Your task to perform on an android device: turn on data saver in the chrome app Image 0: 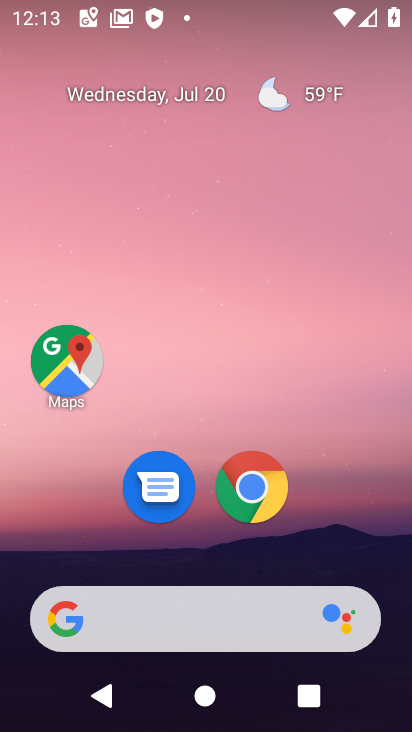
Step 0: click (259, 496)
Your task to perform on an android device: turn on data saver in the chrome app Image 1: 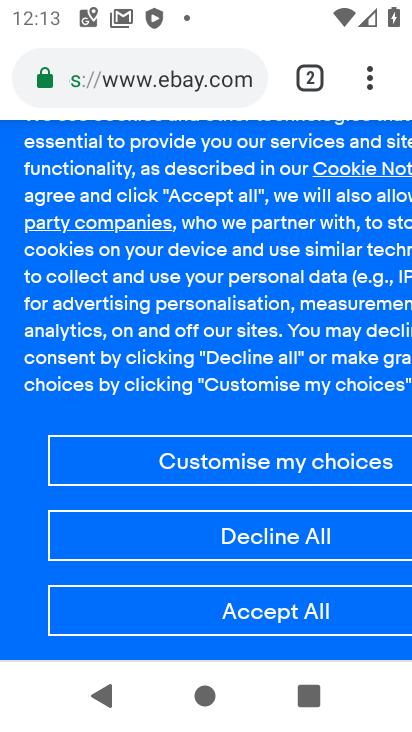
Step 1: drag from (372, 72) to (126, 546)
Your task to perform on an android device: turn on data saver in the chrome app Image 2: 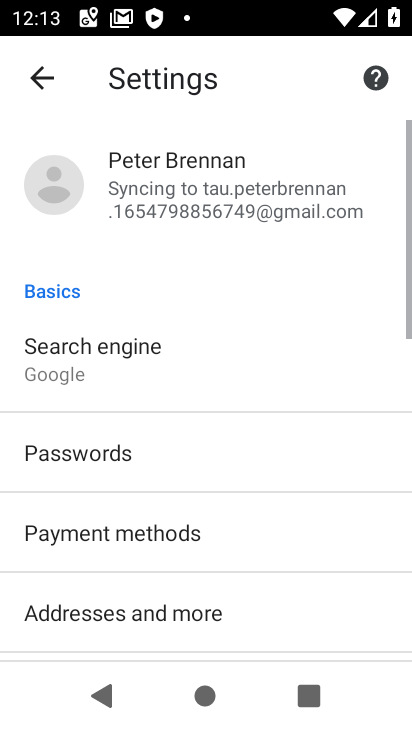
Step 2: drag from (119, 583) to (253, 190)
Your task to perform on an android device: turn on data saver in the chrome app Image 3: 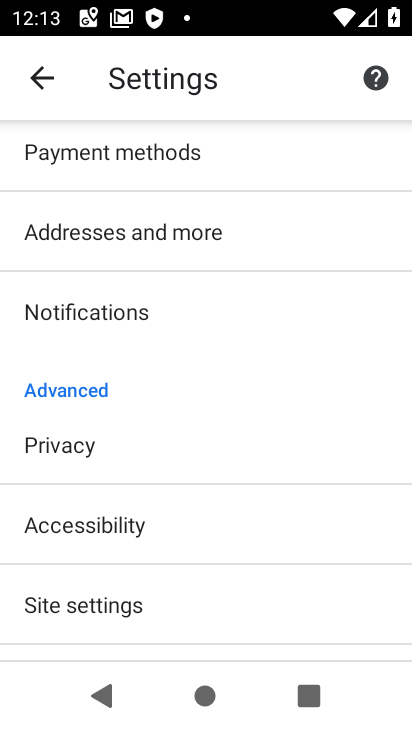
Step 3: drag from (126, 600) to (266, 108)
Your task to perform on an android device: turn on data saver in the chrome app Image 4: 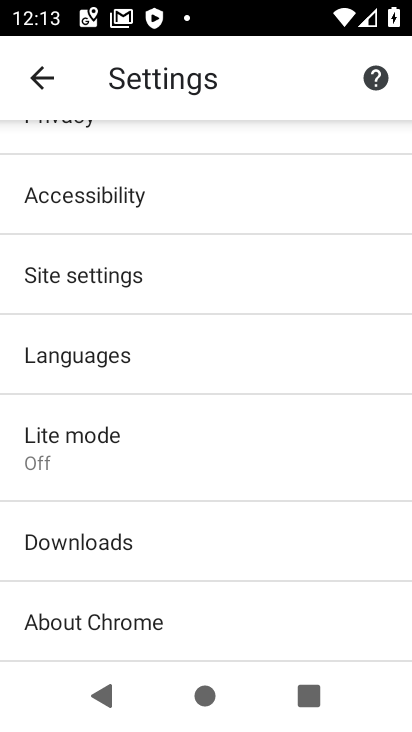
Step 4: click (103, 430)
Your task to perform on an android device: turn on data saver in the chrome app Image 5: 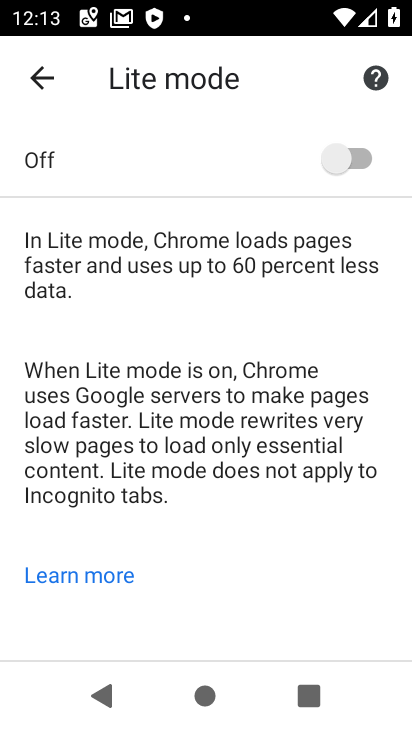
Step 5: click (325, 151)
Your task to perform on an android device: turn on data saver in the chrome app Image 6: 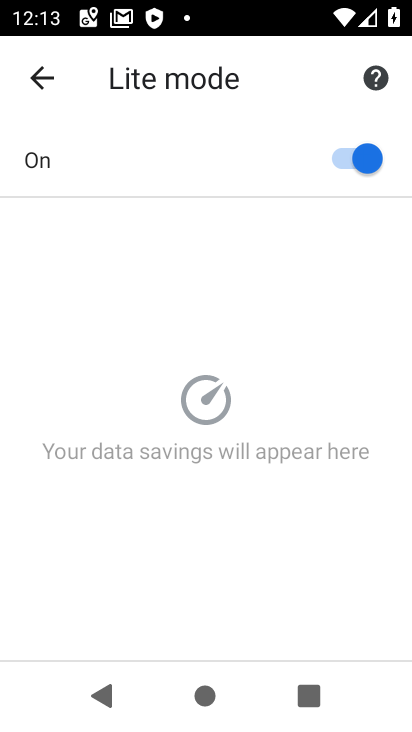
Step 6: task complete